Your task to perform on an android device: toggle notification dots Image 0: 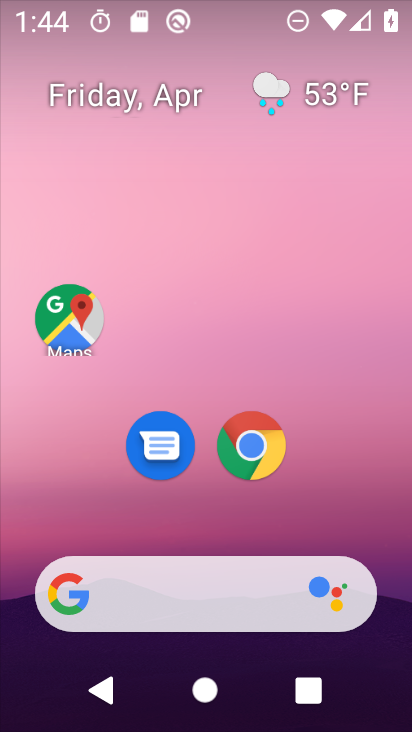
Step 0: drag from (369, 505) to (371, 152)
Your task to perform on an android device: toggle notification dots Image 1: 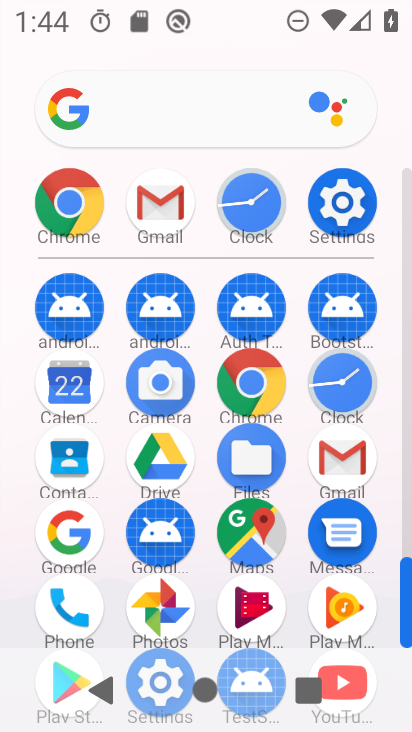
Step 1: click (367, 199)
Your task to perform on an android device: toggle notification dots Image 2: 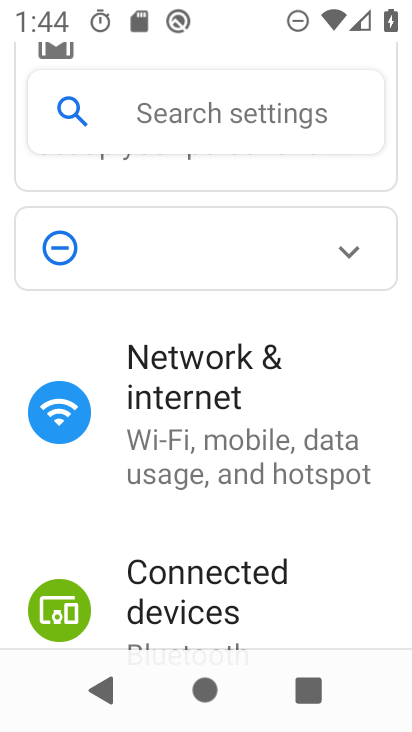
Step 2: drag from (345, 575) to (367, 414)
Your task to perform on an android device: toggle notification dots Image 3: 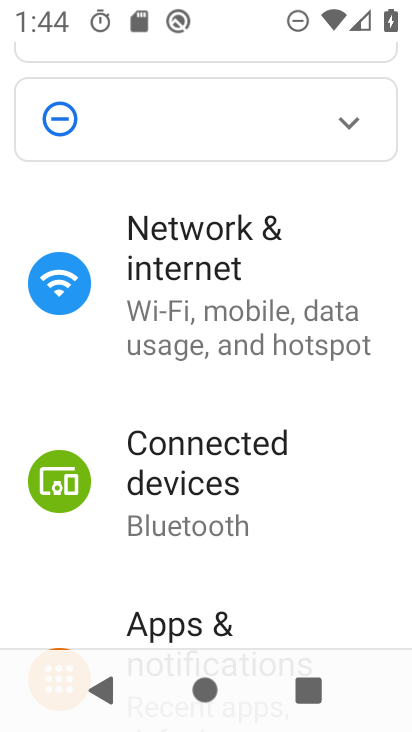
Step 3: drag from (357, 582) to (345, 455)
Your task to perform on an android device: toggle notification dots Image 4: 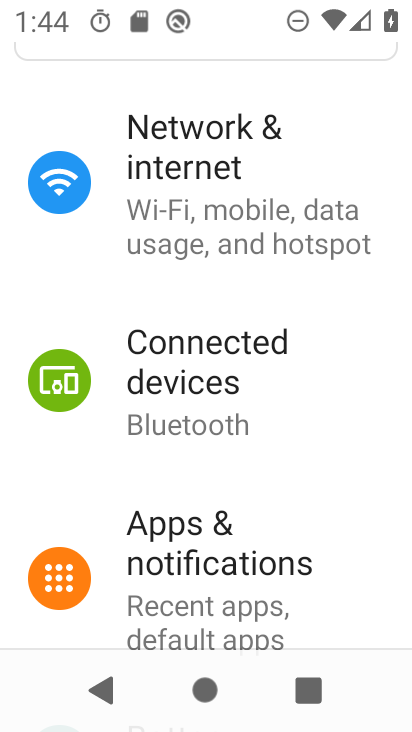
Step 4: drag from (338, 593) to (351, 423)
Your task to perform on an android device: toggle notification dots Image 5: 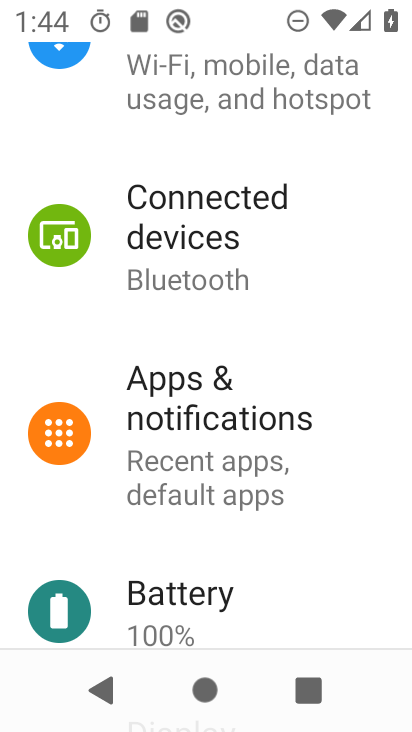
Step 5: drag from (359, 575) to (358, 395)
Your task to perform on an android device: toggle notification dots Image 6: 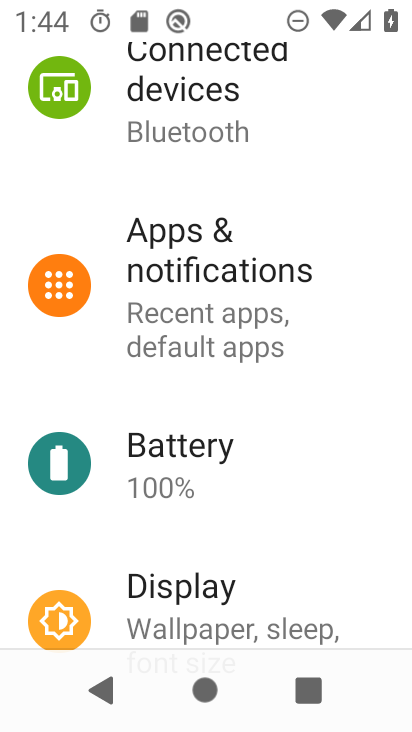
Step 6: drag from (335, 560) to (322, 408)
Your task to perform on an android device: toggle notification dots Image 7: 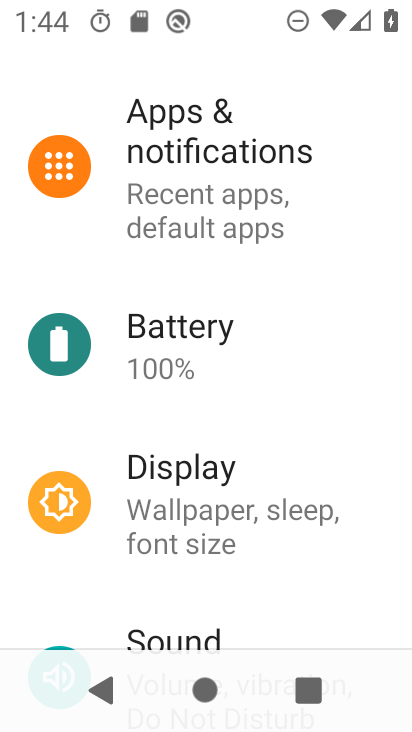
Step 7: drag from (357, 250) to (339, 380)
Your task to perform on an android device: toggle notification dots Image 8: 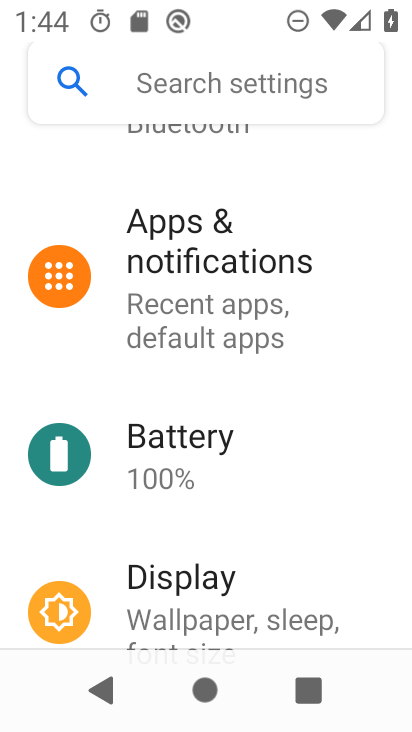
Step 8: click (238, 289)
Your task to perform on an android device: toggle notification dots Image 9: 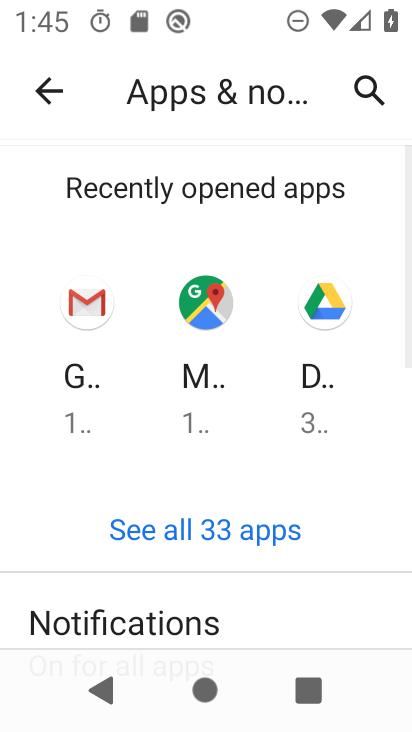
Step 9: drag from (339, 583) to (364, 406)
Your task to perform on an android device: toggle notification dots Image 10: 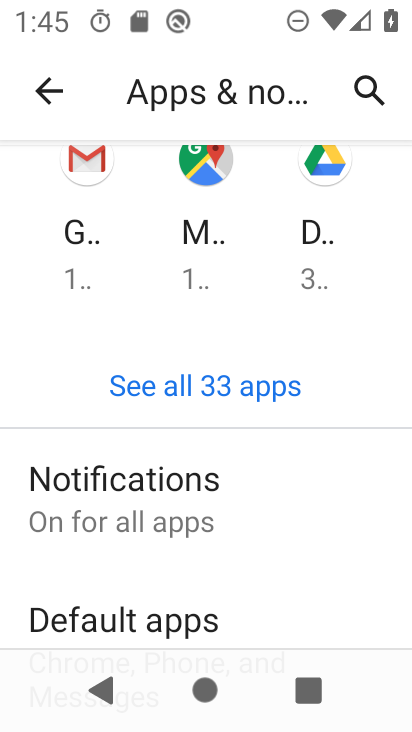
Step 10: click (178, 516)
Your task to perform on an android device: toggle notification dots Image 11: 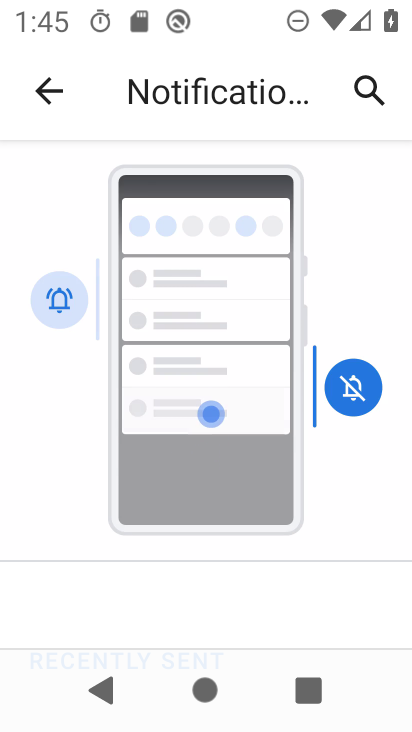
Step 11: drag from (322, 589) to (356, 384)
Your task to perform on an android device: toggle notification dots Image 12: 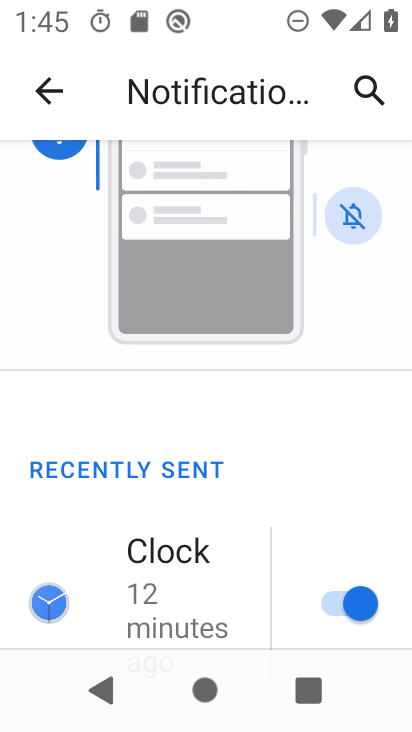
Step 12: drag from (258, 608) to (252, 462)
Your task to perform on an android device: toggle notification dots Image 13: 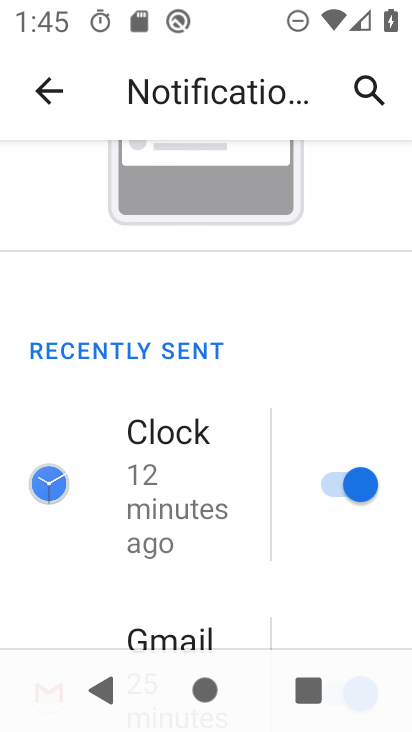
Step 13: drag from (298, 588) to (298, 462)
Your task to perform on an android device: toggle notification dots Image 14: 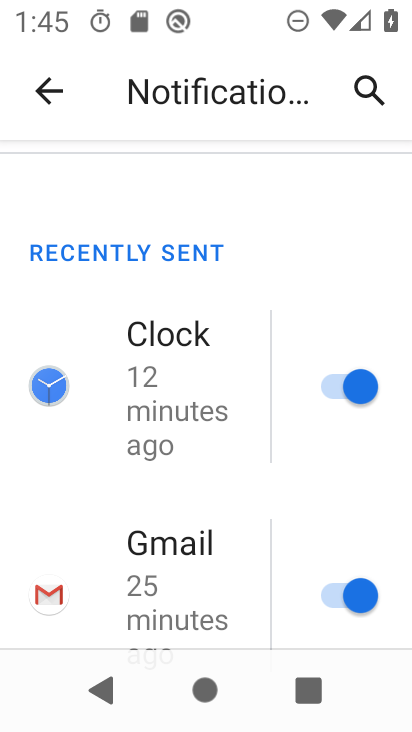
Step 14: drag from (294, 605) to (305, 201)
Your task to perform on an android device: toggle notification dots Image 15: 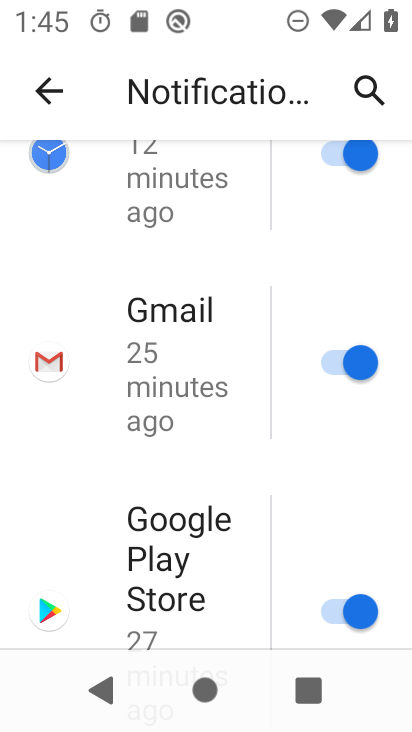
Step 15: drag from (242, 612) to (245, 339)
Your task to perform on an android device: toggle notification dots Image 16: 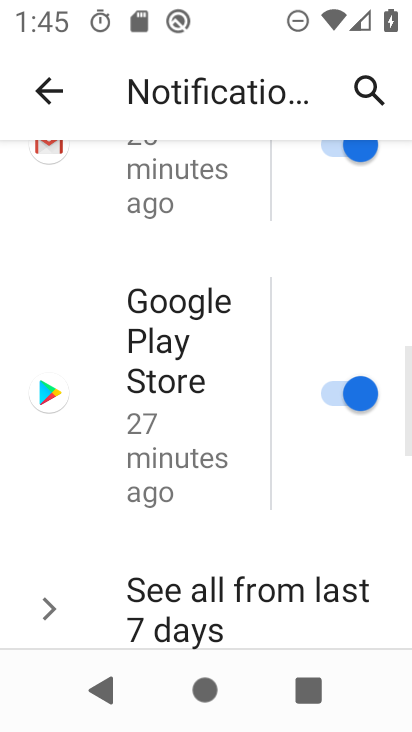
Step 16: drag from (257, 592) to (267, 390)
Your task to perform on an android device: toggle notification dots Image 17: 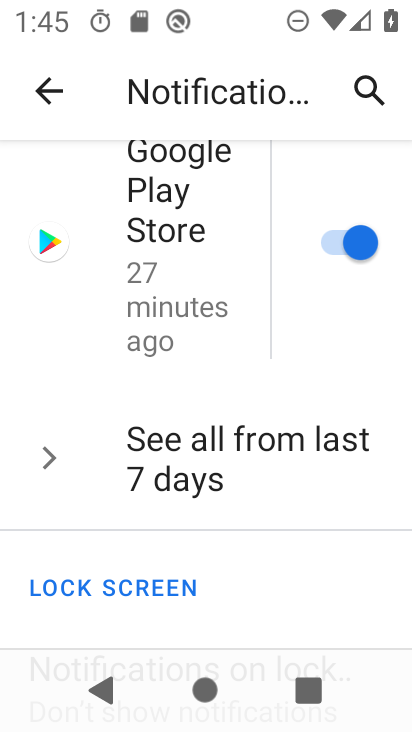
Step 17: drag from (300, 587) to (261, 284)
Your task to perform on an android device: toggle notification dots Image 18: 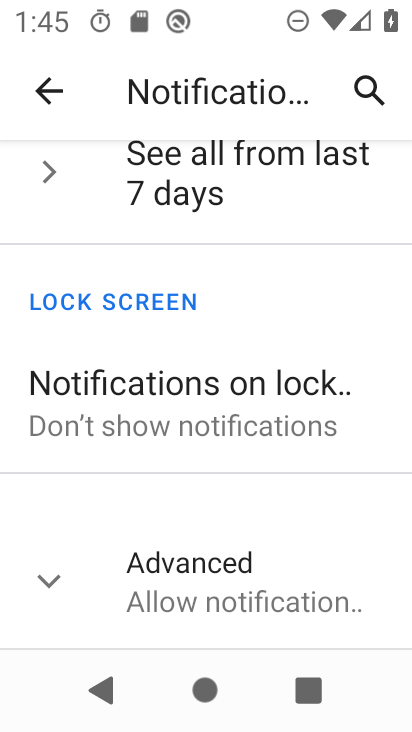
Step 18: click (230, 570)
Your task to perform on an android device: toggle notification dots Image 19: 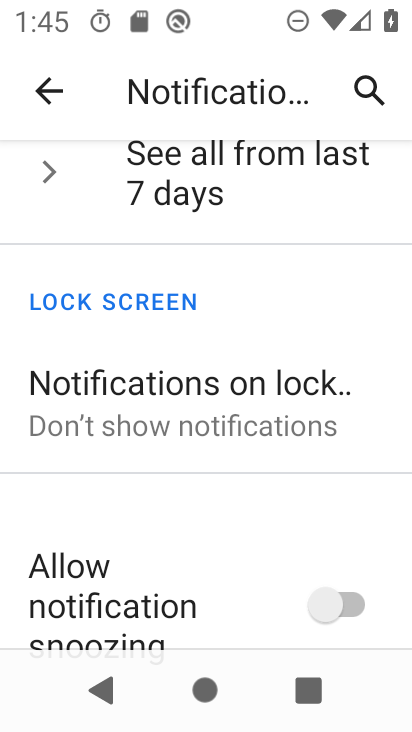
Step 19: drag from (236, 573) to (250, 272)
Your task to perform on an android device: toggle notification dots Image 20: 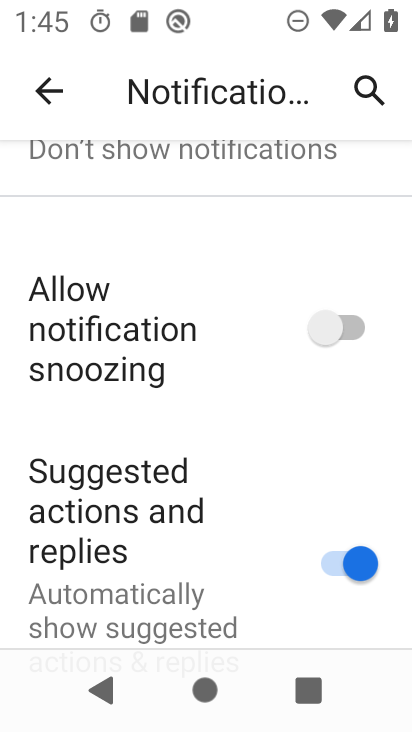
Step 20: drag from (243, 563) to (249, 216)
Your task to perform on an android device: toggle notification dots Image 21: 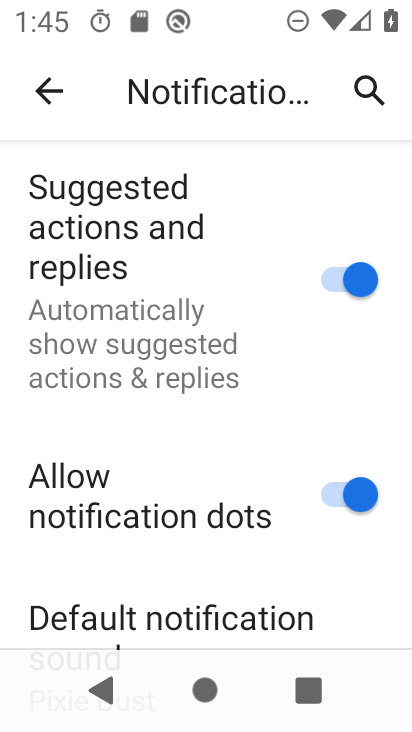
Step 21: drag from (244, 563) to (289, 246)
Your task to perform on an android device: toggle notification dots Image 22: 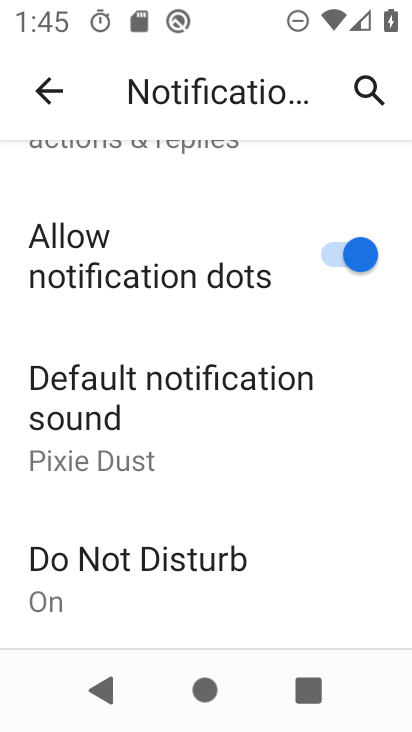
Step 22: click (370, 249)
Your task to perform on an android device: toggle notification dots Image 23: 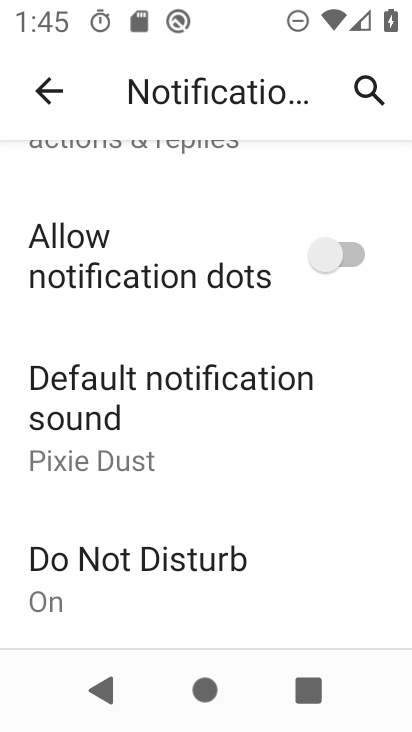
Step 23: task complete